Your task to perform on an android device: stop showing notifications on the lock screen Image 0: 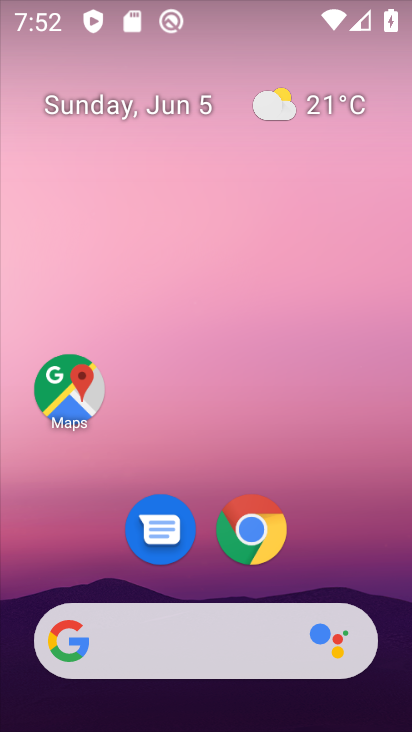
Step 0: drag from (229, 712) to (236, 12)
Your task to perform on an android device: stop showing notifications on the lock screen Image 1: 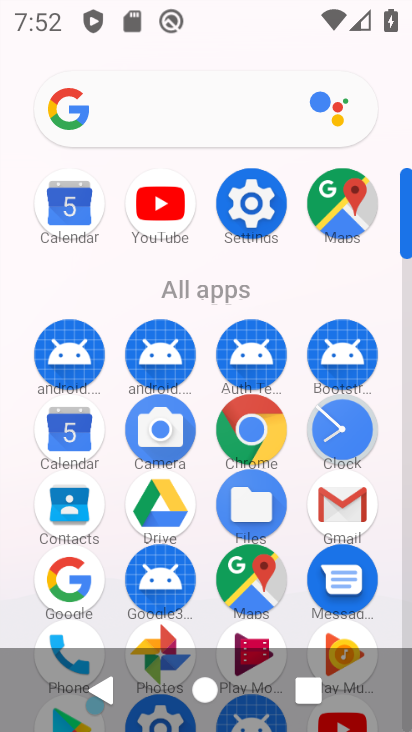
Step 1: click (250, 199)
Your task to perform on an android device: stop showing notifications on the lock screen Image 2: 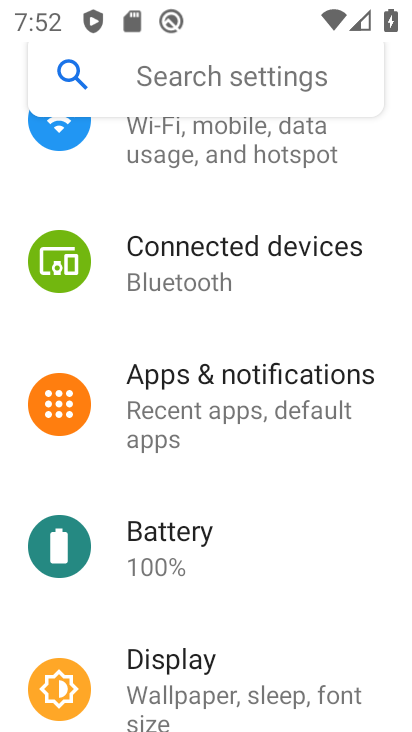
Step 2: drag from (222, 619) to (236, 41)
Your task to perform on an android device: stop showing notifications on the lock screen Image 3: 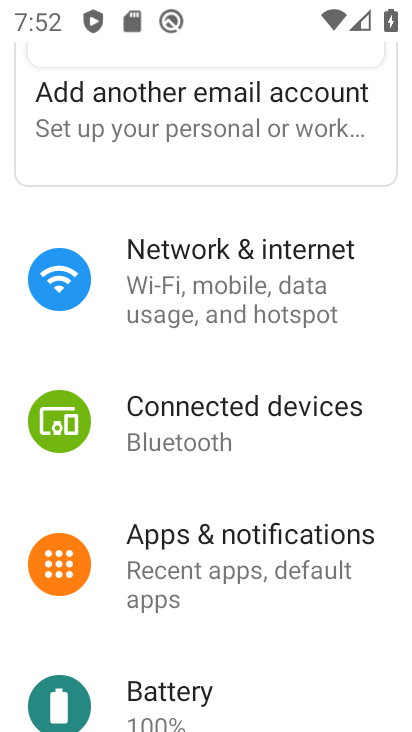
Step 3: click (273, 563)
Your task to perform on an android device: stop showing notifications on the lock screen Image 4: 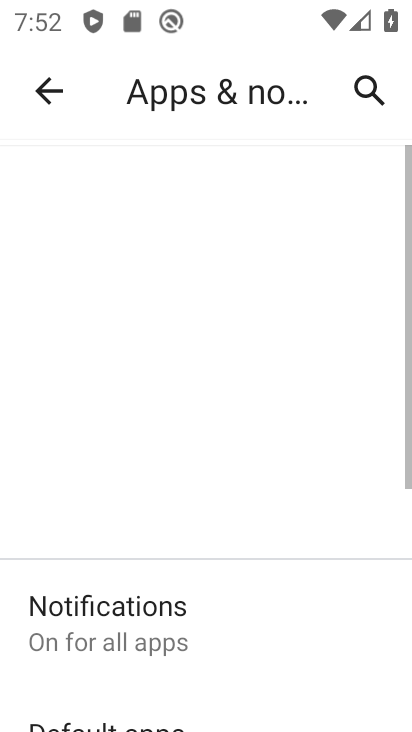
Step 4: drag from (301, 626) to (377, 68)
Your task to perform on an android device: stop showing notifications on the lock screen Image 5: 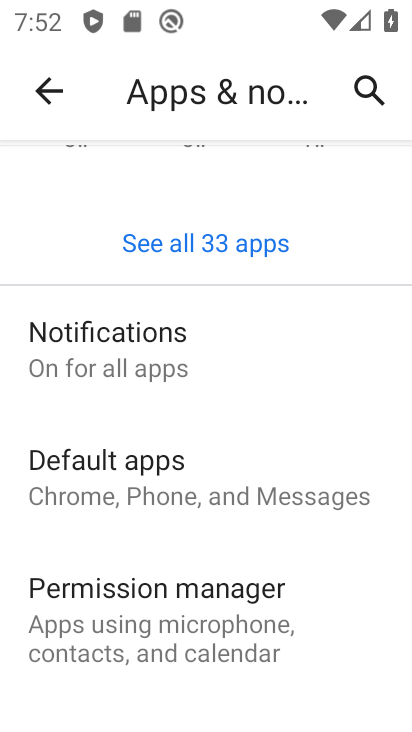
Step 5: click (152, 389)
Your task to perform on an android device: stop showing notifications on the lock screen Image 6: 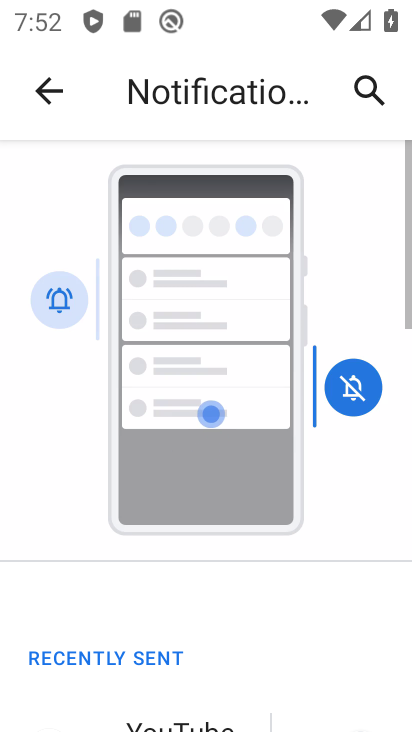
Step 6: drag from (188, 603) to (272, 34)
Your task to perform on an android device: stop showing notifications on the lock screen Image 7: 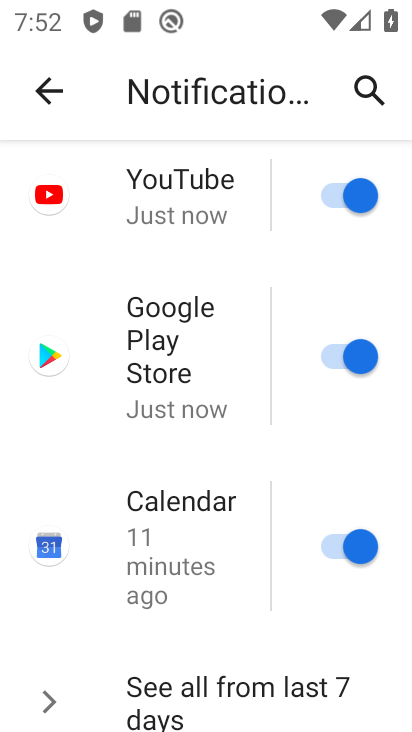
Step 7: drag from (221, 699) to (188, 79)
Your task to perform on an android device: stop showing notifications on the lock screen Image 8: 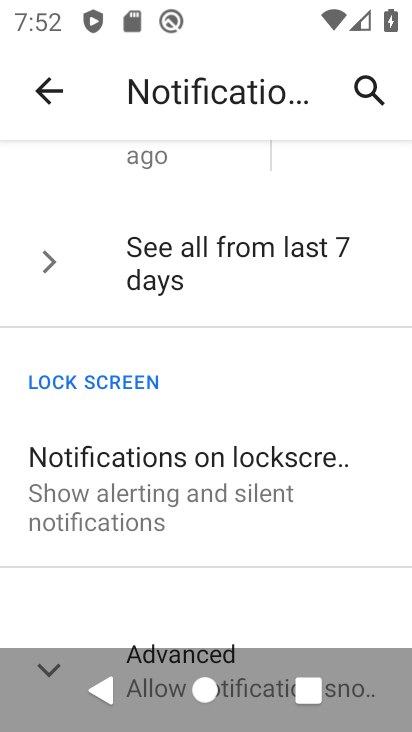
Step 8: click (141, 513)
Your task to perform on an android device: stop showing notifications on the lock screen Image 9: 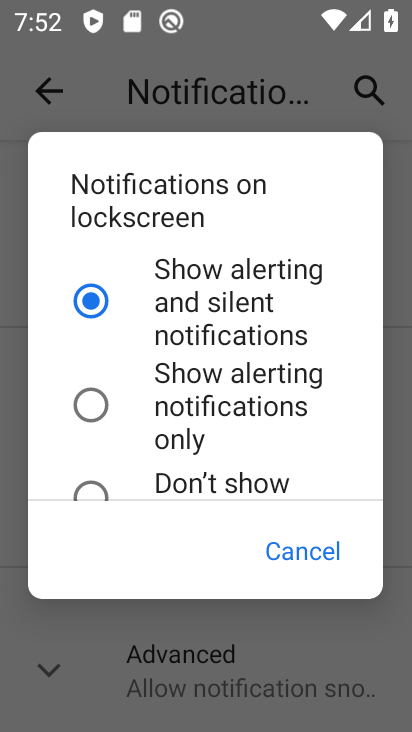
Step 9: click (190, 486)
Your task to perform on an android device: stop showing notifications on the lock screen Image 10: 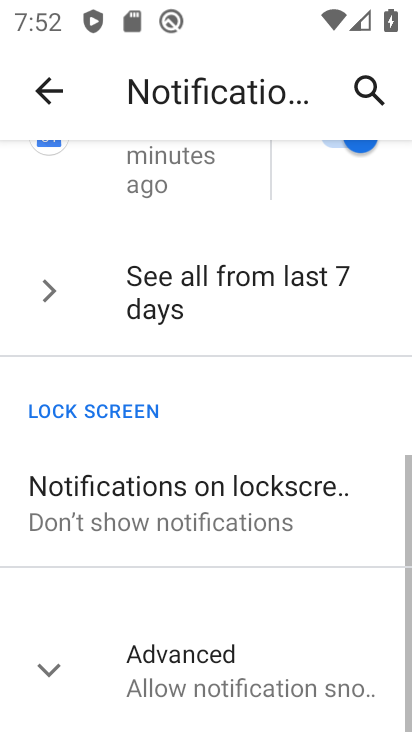
Step 10: task complete